Your task to perform on an android device: turn on the 12-hour format for clock Image 0: 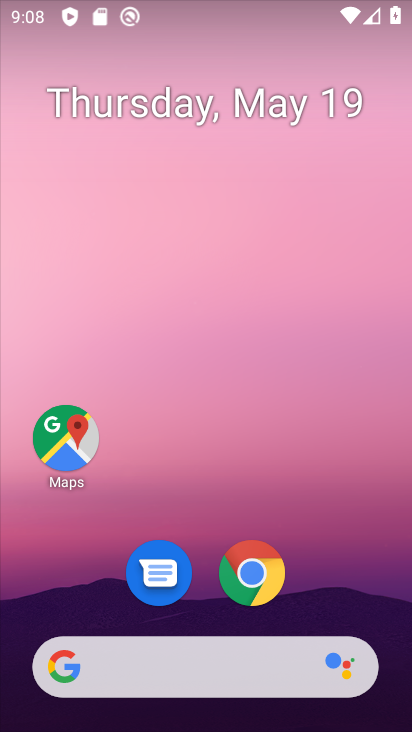
Step 0: drag from (209, 605) to (228, 211)
Your task to perform on an android device: turn on the 12-hour format for clock Image 1: 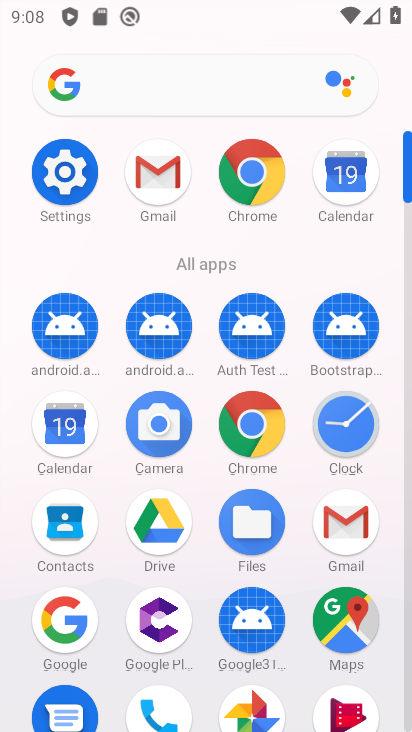
Step 1: click (330, 421)
Your task to perform on an android device: turn on the 12-hour format for clock Image 2: 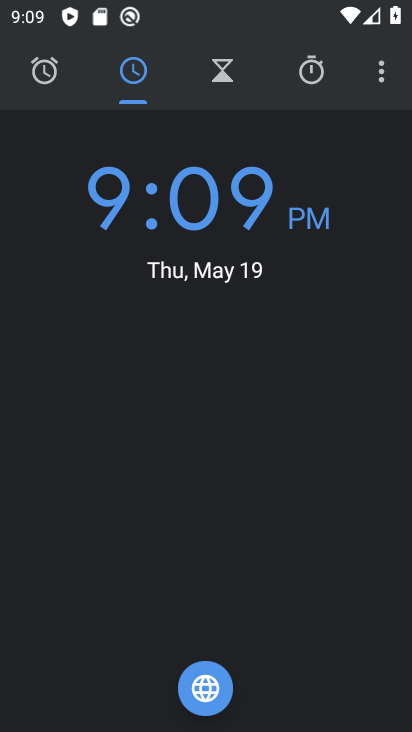
Step 2: click (376, 68)
Your task to perform on an android device: turn on the 12-hour format for clock Image 3: 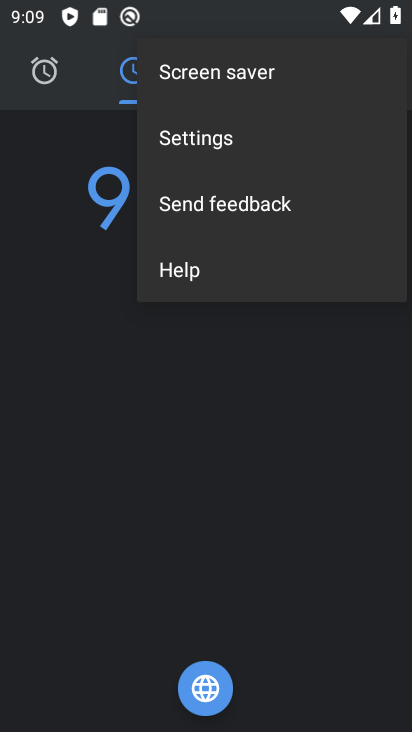
Step 3: click (276, 141)
Your task to perform on an android device: turn on the 12-hour format for clock Image 4: 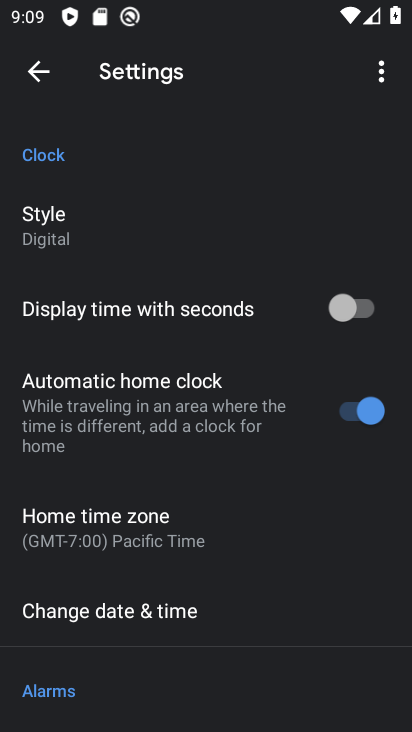
Step 4: click (194, 608)
Your task to perform on an android device: turn on the 12-hour format for clock Image 5: 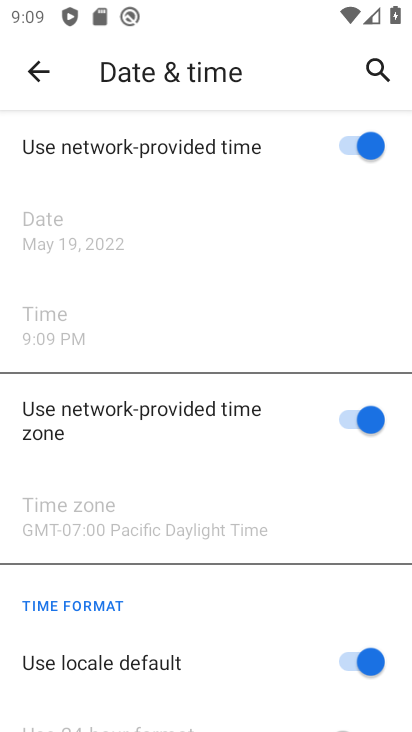
Step 5: task complete